Your task to perform on an android device: turn off sleep mode Image 0: 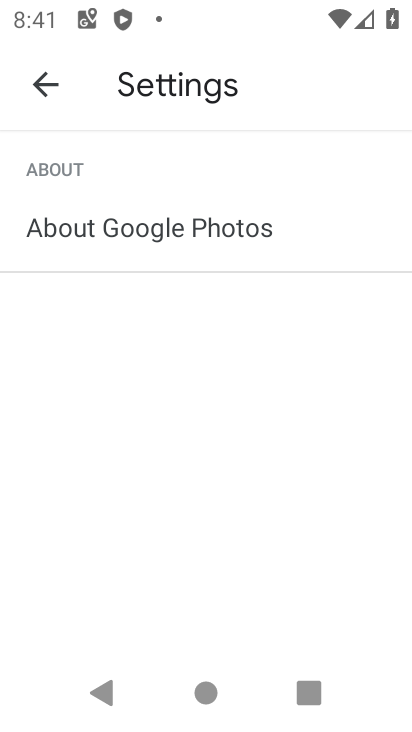
Step 0: press home button
Your task to perform on an android device: turn off sleep mode Image 1: 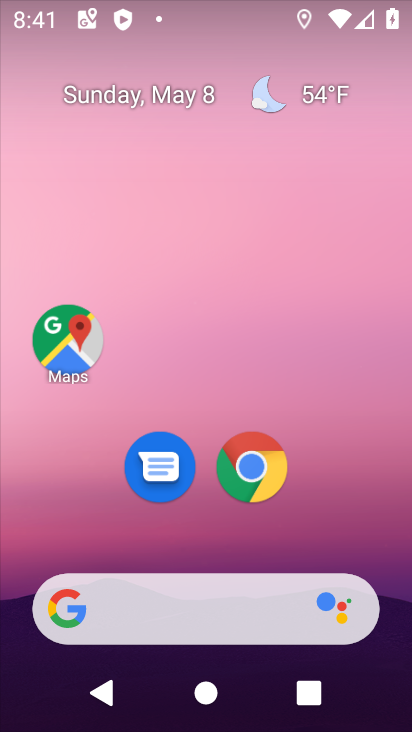
Step 1: drag from (397, 632) to (374, 224)
Your task to perform on an android device: turn off sleep mode Image 2: 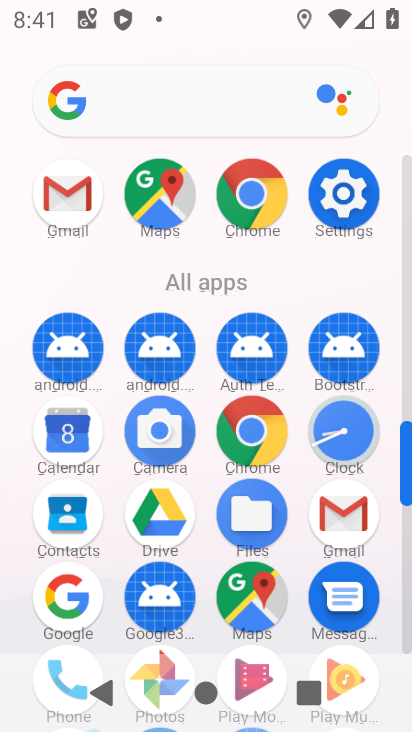
Step 2: click (410, 635)
Your task to perform on an android device: turn off sleep mode Image 3: 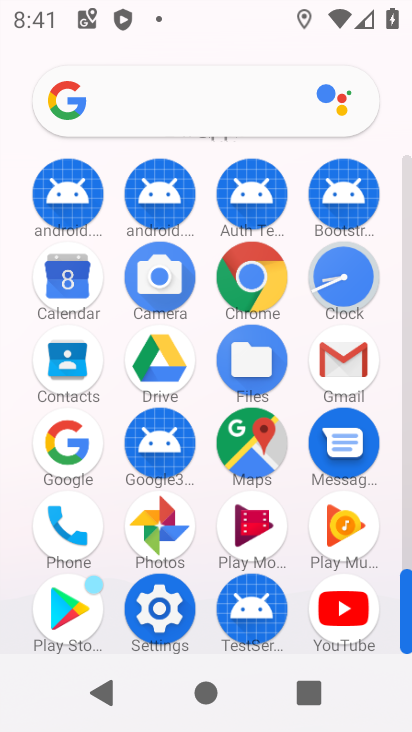
Step 3: click (155, 608)
Your task to perform on an android device: turn off sleep mode Image 4: 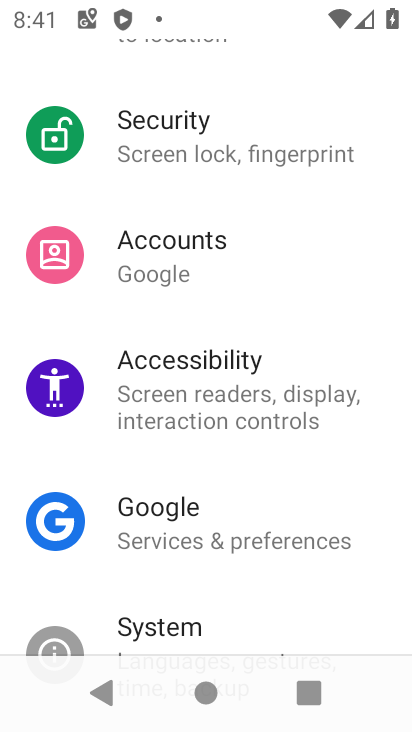
Step 4: drag from (169, 634) to (256, 120)
Your task to perform on an android device: turn off sleep mode Image 5: 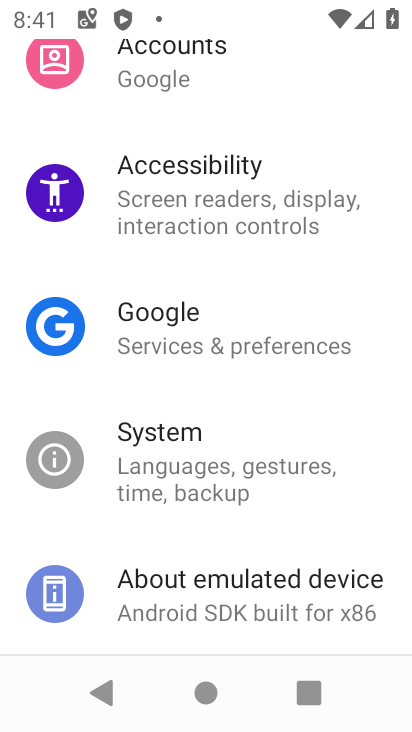
Step 5: drag from (251, 141) to (198, 484)
Your task to perform on an android device: turn off sleep mode Image 6: 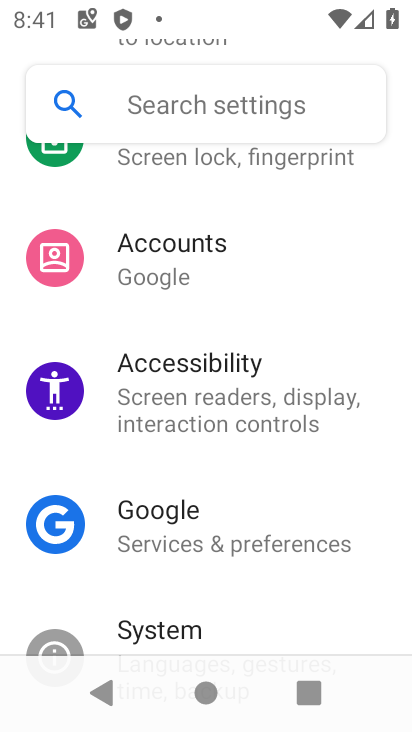
Step 6: drag from (234, 251) to (207, 599)
Your task to perform on an android device: turn off sleep mode Image 7: 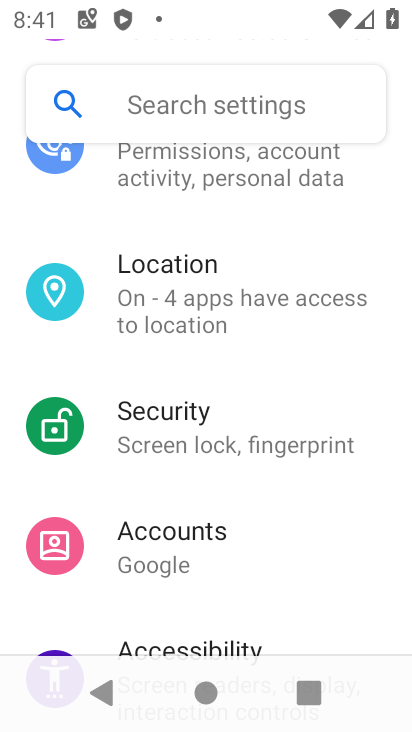
Step 7: drag from (302, 211) to (251, 497)
Your task to perform on an android device: turn off sleep mode Image 8: 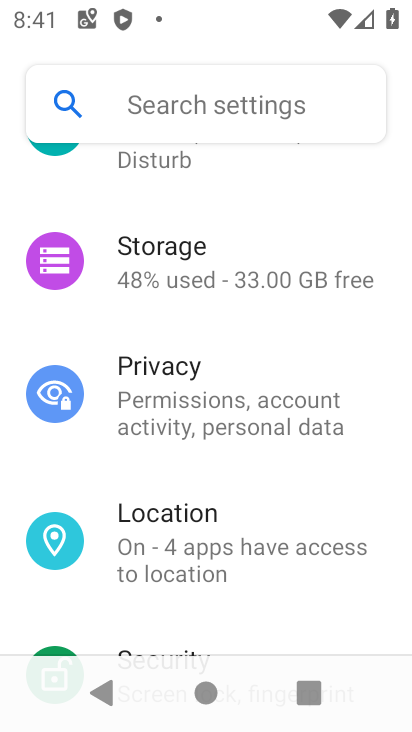
Step 8: drag from (271, 293) to (247, 599)
Your task to perform on an android device: turn off sleep mode Image 9: 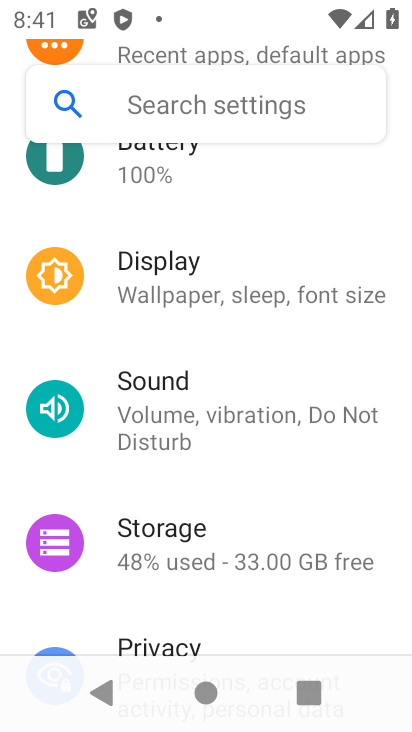
Step 9: click (191, 270)
Your task to perform on an android device: turn off sleep mode Image 10: 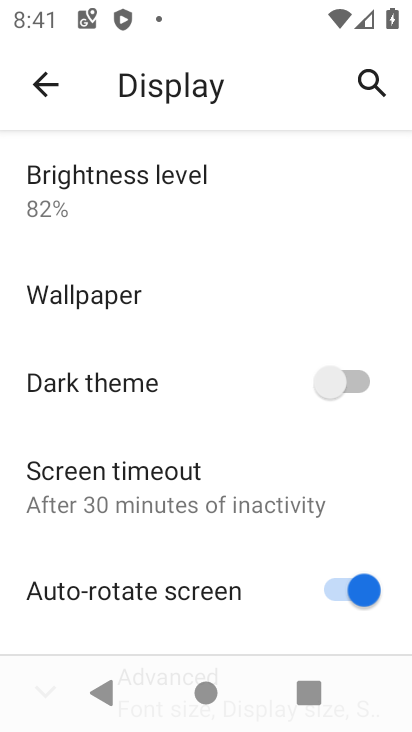
Step 10: drag from (289, 594) to (244, 210)
Your task to perform on an android device: turn off sleep mode Image 11: 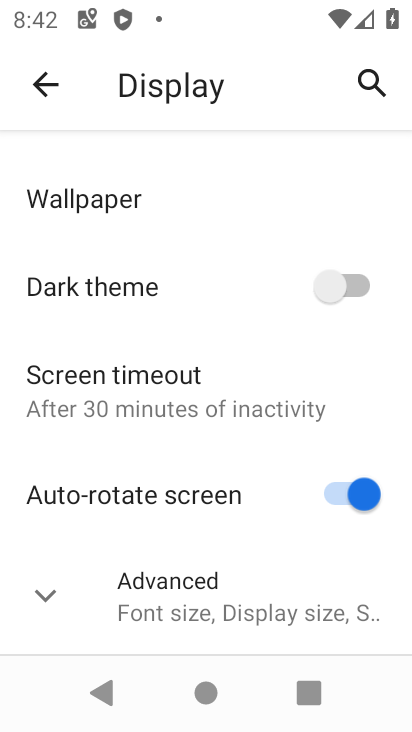
Step 11: click (47, 589)
Your task to perform on an android device: turn off sleep mode Image 12: 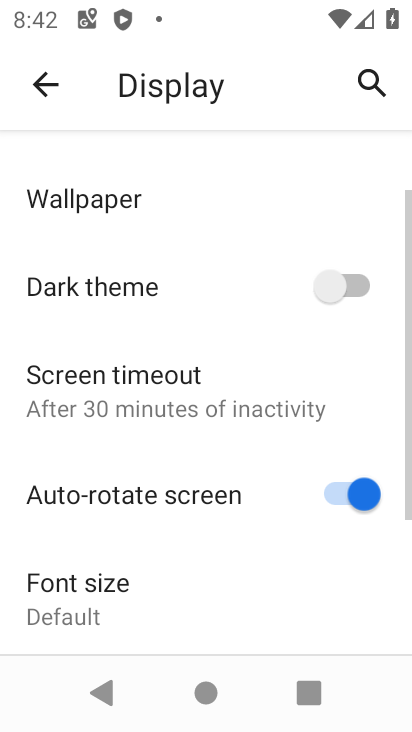
Step 12: task complete